Your task to perform on an android device: What's the weather going to be tomorrow? Image 0: 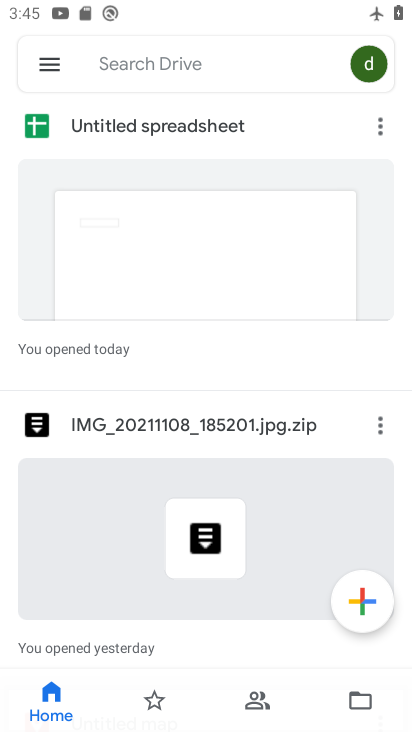
Step 0: press home button
Your task to perform on an android device: What's the weather going to be tomorrow? Image 1: 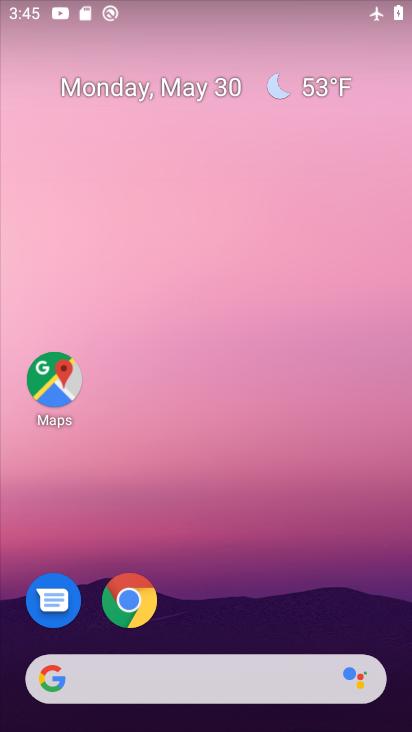
Step 1: drag from (347, 474) to (403, 124)
Your task to perform on an android device: What's the weather going to be tomorrow? Image 2: 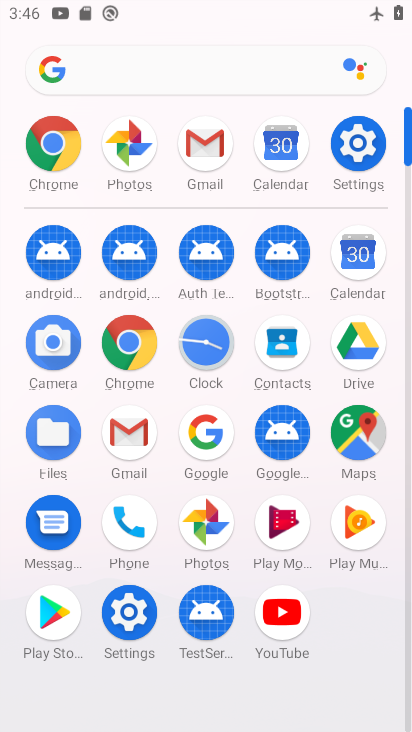
Step 2: press home button
Your task to perform on an android device: What's the weather going to be tomorrow? Image 3: 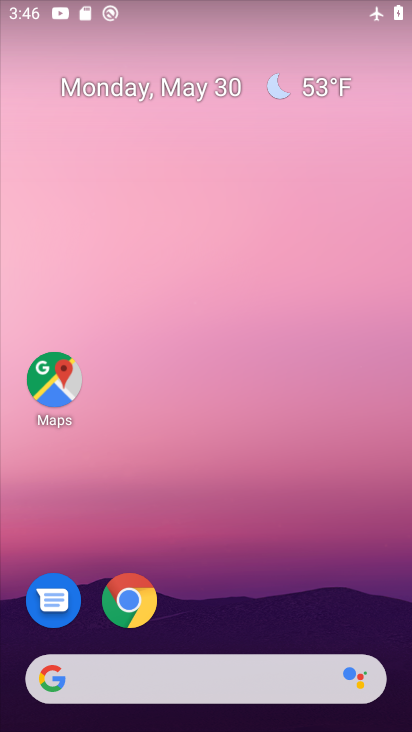
Step 3: click (318, 102)
Your task to perform on an android device: What's the weather going to be tomorrow? Image 4: 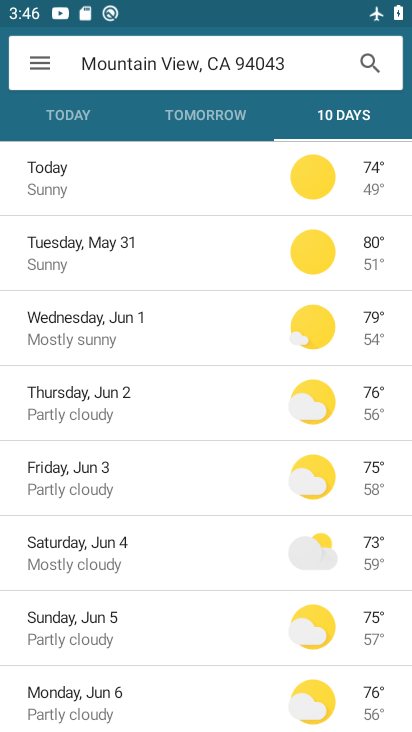
Step 4: click (214, 120)
Your task to perform on an android device: What's the weather going to be tomorrow? Image 5: 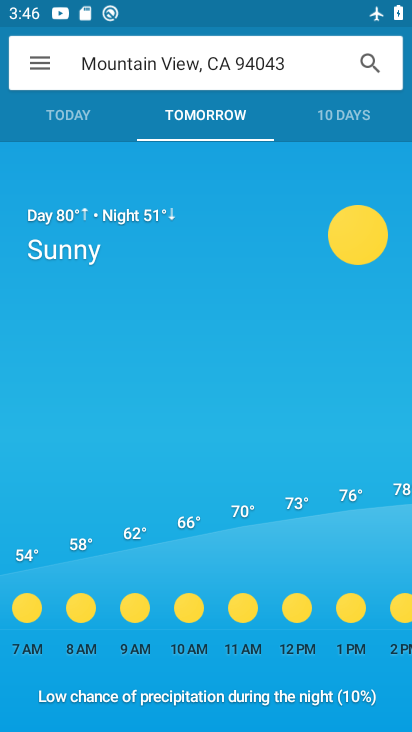
Step 5: task complete